Your task to perform on an android device: turn smart compose on in the gmail app Image 0: 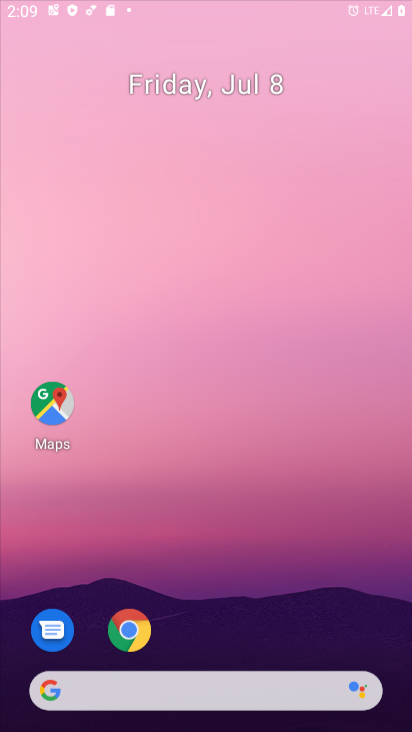
Step 0: press home button
Your task to perform on an android device: turn smart compose on in the gmail app Image 1: 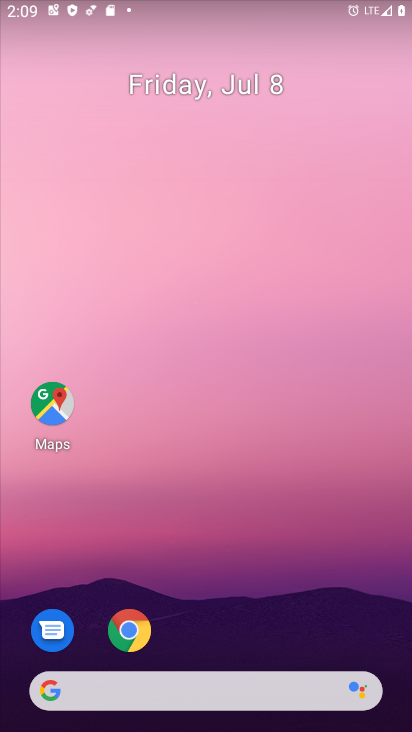
Step 1: drag from (232, 657) to (262, 72)
Your task to perform on an android device: turn smart compose on in the gmail app Image 2: 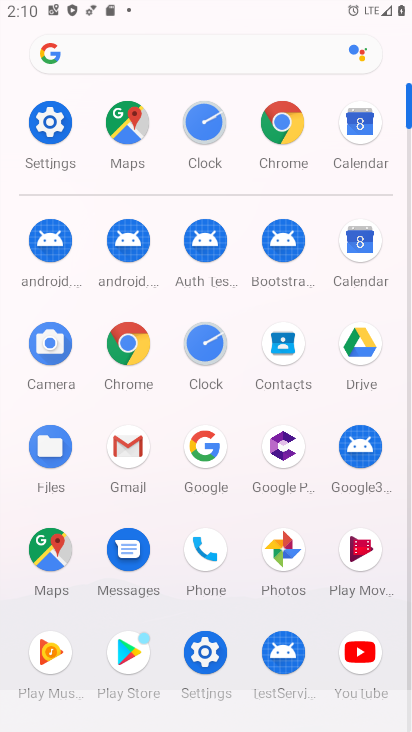
Step 2: click (124, 436)
Your task to perform on an android device: turn smart compose on in the gmail app Image 3: 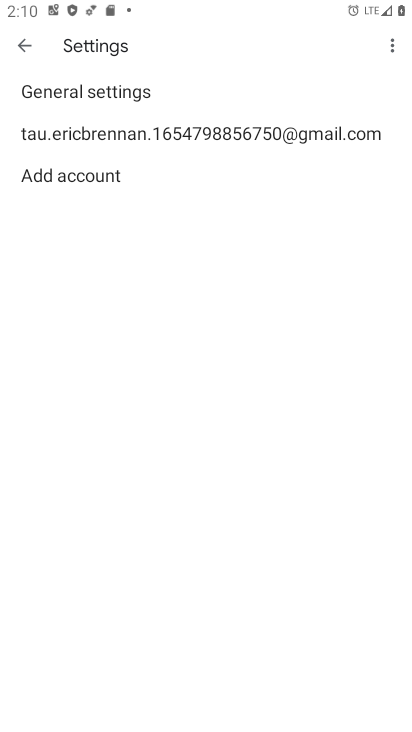
Step 3: click (143, 129)
Your task to perform on an android device: turn smart compose on in the gmail app Image 4: 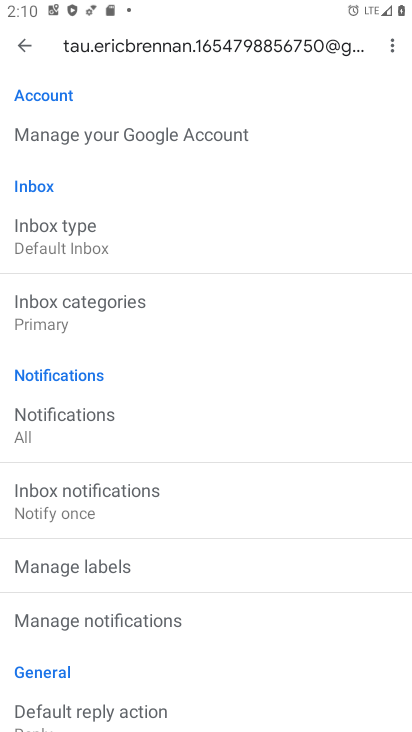
Step 4: task complete